Your task to perform on an android device: search for starred emails in the gmail app Image 0: 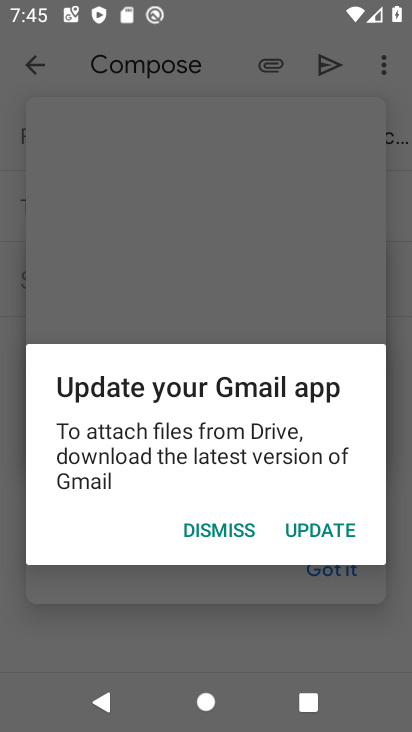
Step 0: press home button
Your task to perform on an android device: search for starred emails in the gmail app Image 1: 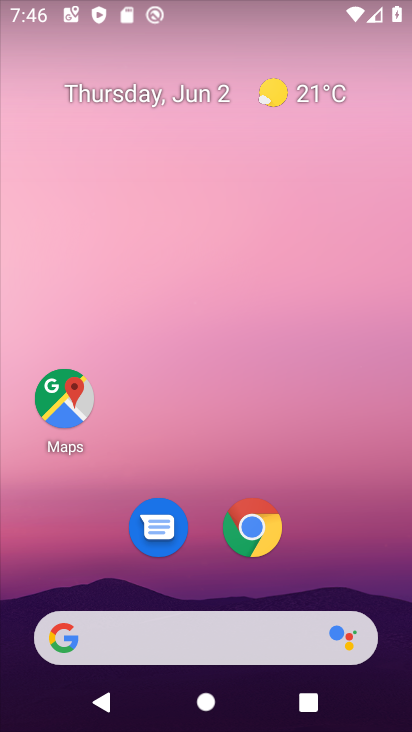
Step 1: drag from (346, 592) to (339, 176)
Your task to perform on an android device: search for starred emails in the gmail app Image 2: 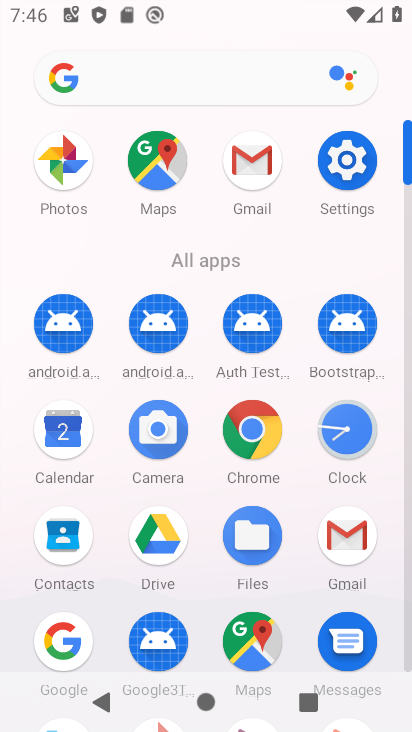
Step 2: click (239, 143)
Your task to perform on an android device: search for starred emails in the gmail app Image 3: 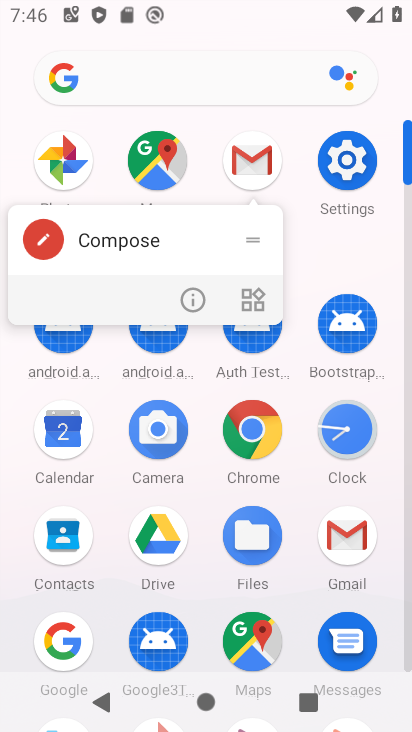
Step 3: click (249, 145)
Your task to perform on an android device: search for starred emails in the gmail app Image 4: 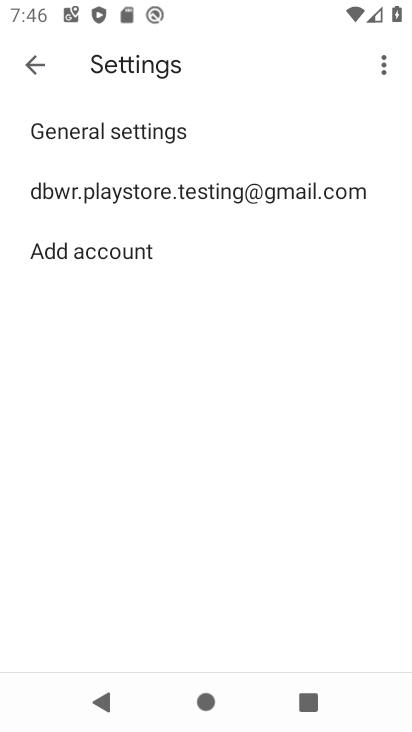
Step 4: click (24, 55)
Your task to perform on an android device: search for starred emails in the gmail app Image 5: 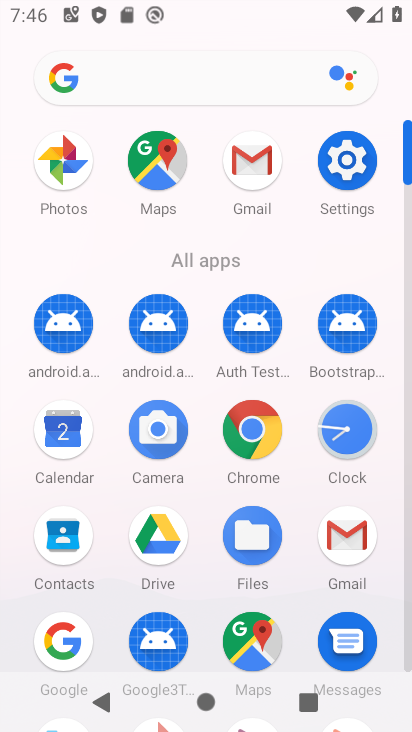
Step 5: click (285, 166)
Your task to perform on an android device: search for starred emails in the gmail app Image 6: 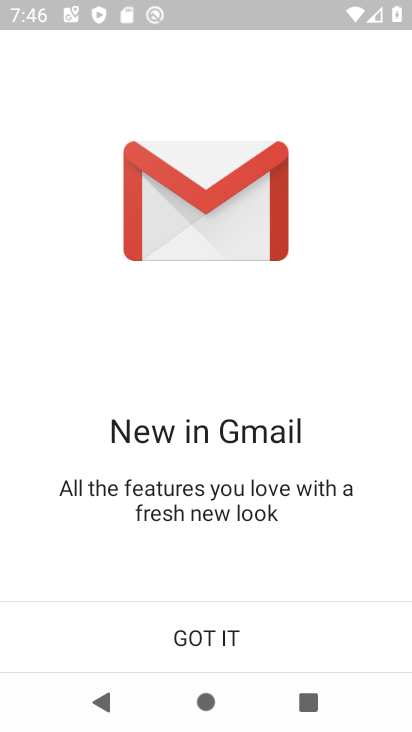
Step 6: click (181, 619)
Your task to perform on an android device: search for starred emails in the gmail app Image 7: 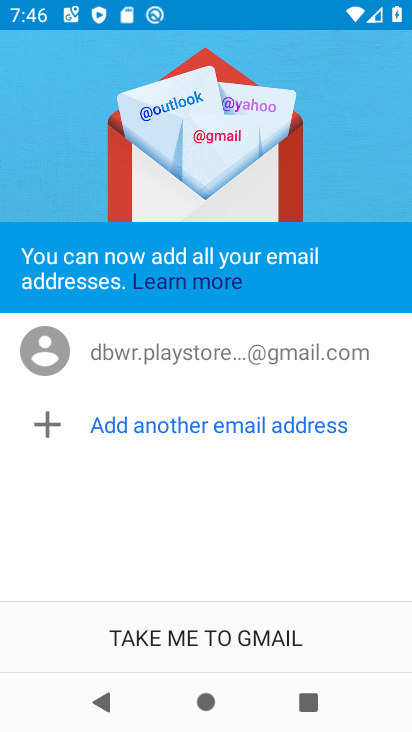
Step 7: click (181, 619)
Your task to perform on an android device: search for starred emails in the gmail app Image 8: 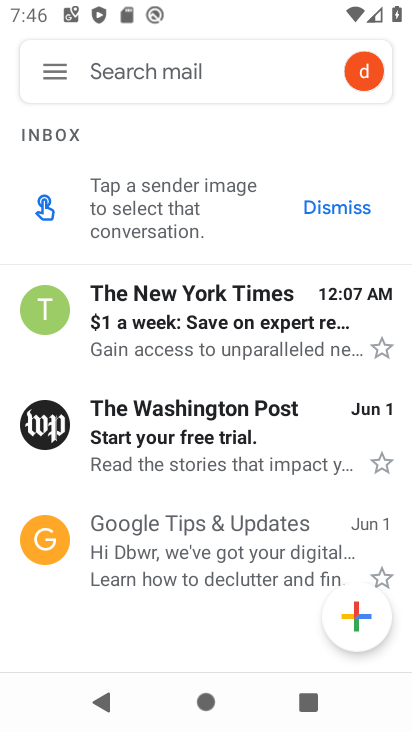
Step 8: click (36, 51)
Your task to perform on an android device: search for starred emails in the gmail app Image 9: 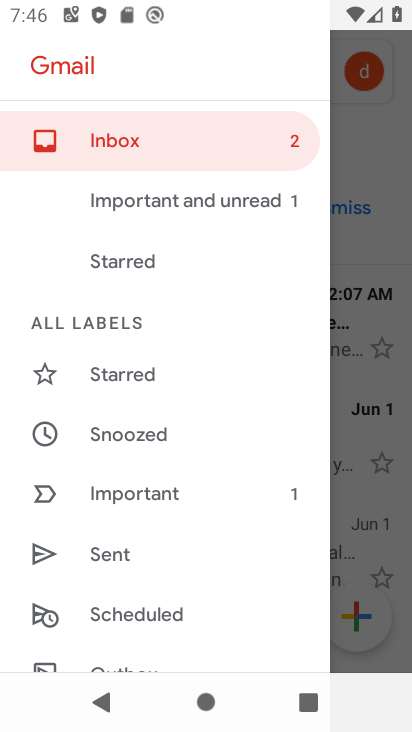
Step 9: click (123, 369)
Your task to perform on an android device: search for starred emails in the gmail app Image 10: 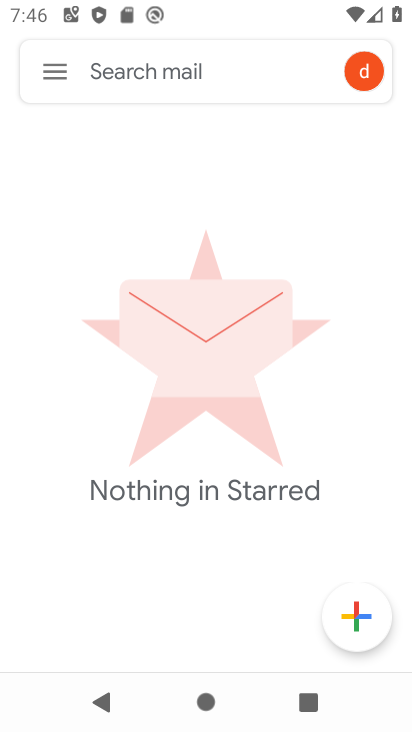
Step 10: task complete